Your task to perform on an android device: toggle javascript in the chrome app Image 0: 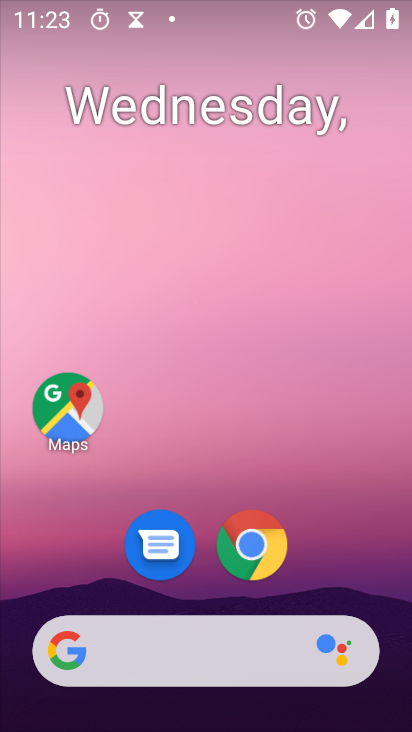
Step 0: press home button
Your task to perform on an android device: toggle javascript in the chrome app Image 1: 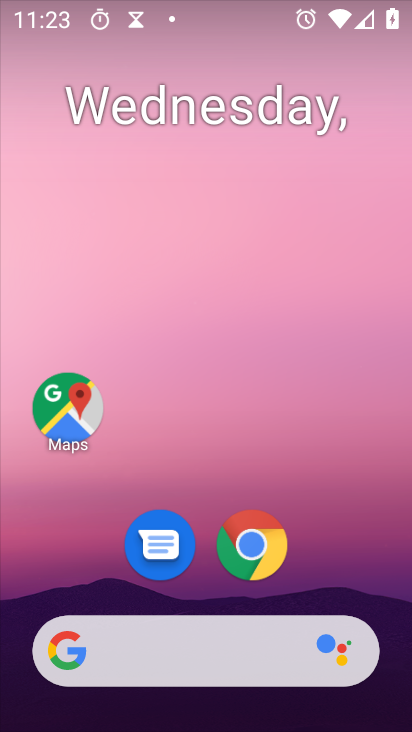
Step 1: click (249, 547)
Your task to perform on an android device: toggle javascript in the chrome app Image 2: 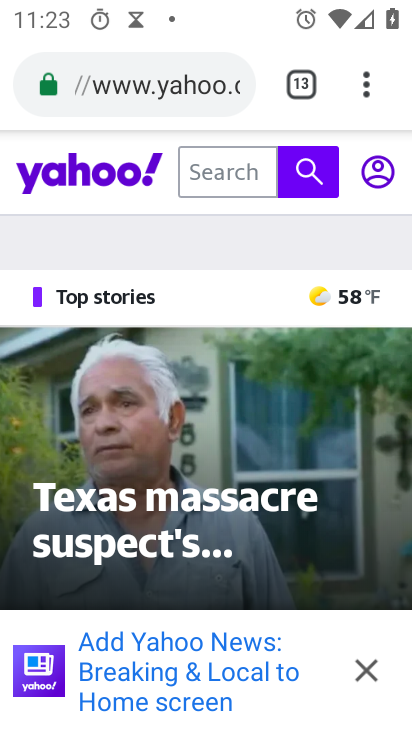
Step 2: drag from (367, 85) to (228, 605)
Your task to perform on an android device: toggle javascript in the chrome app Image 3: 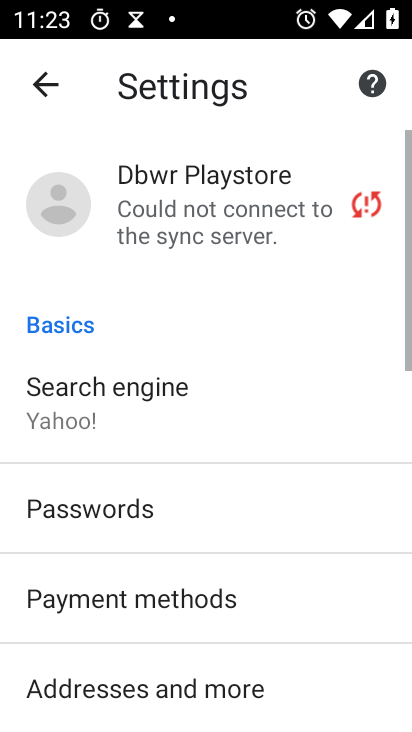
Step 3: drag from (189, 670) to (280, 231)
Your task to perform on an android device: toggle javascript in the chrome app Image 4: 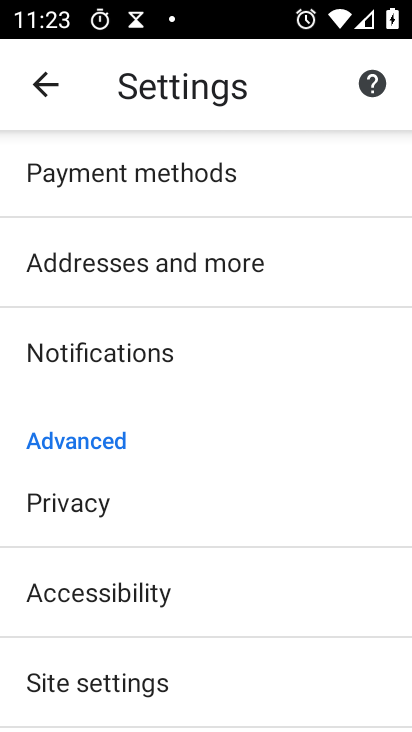
Step 4: drag from (139, 659) to (240, 320)
Your task to perform on an android device: toggle javascript in the chrome app Image 5: 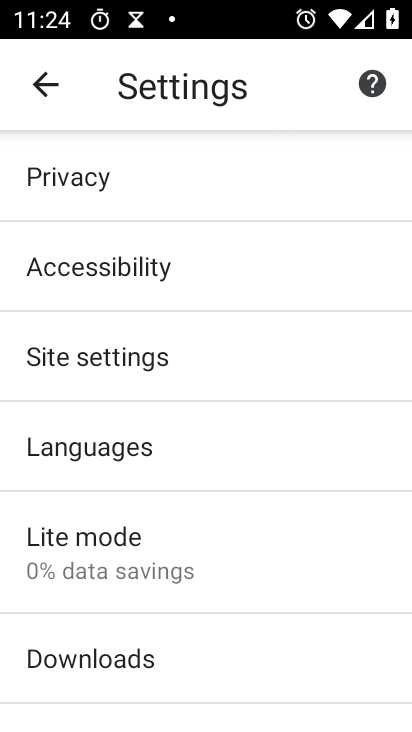
Step 5: click (125, 349)
Your task to perform on an android device: toggle javascript in the chrome app Image 6: 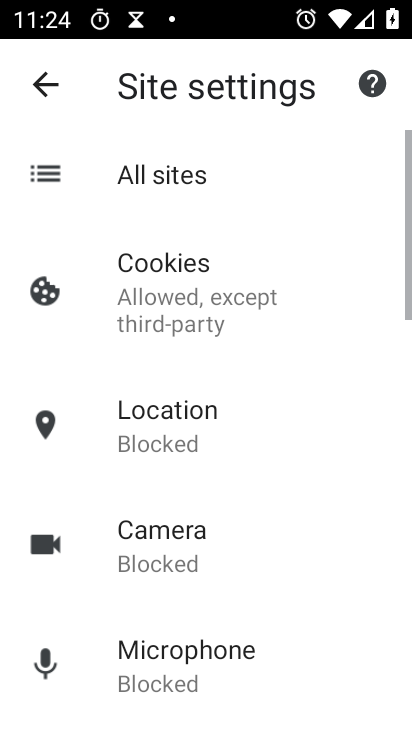
Step 6: drag from (196, 618) to (283, 137)
Your task to perform on an android device: toggle javascript in the chrome app Image 7: 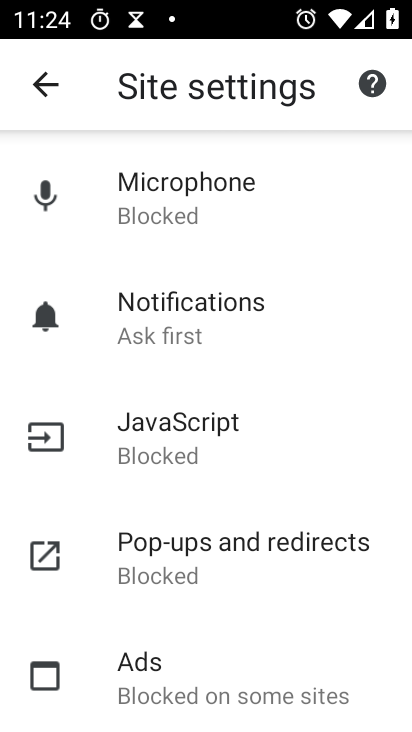
Step 7: click (156, 429)
Your task to perform on an android device: toggle javascript in the chrome app Image 8: 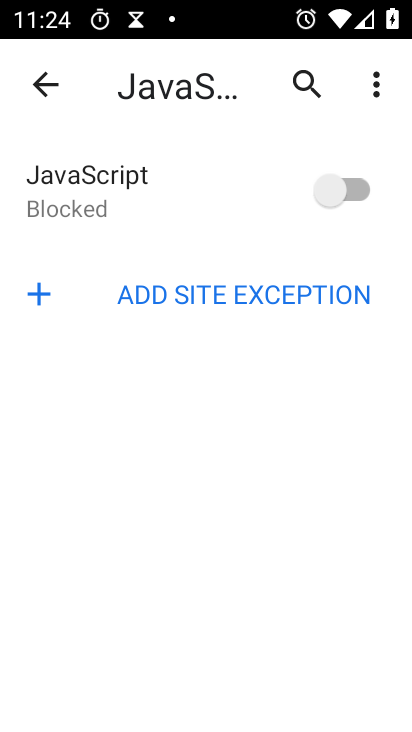
Step 8: click (359, 185)
Your task to perform on an android device: toggle javascript in the chrome app Image 9: 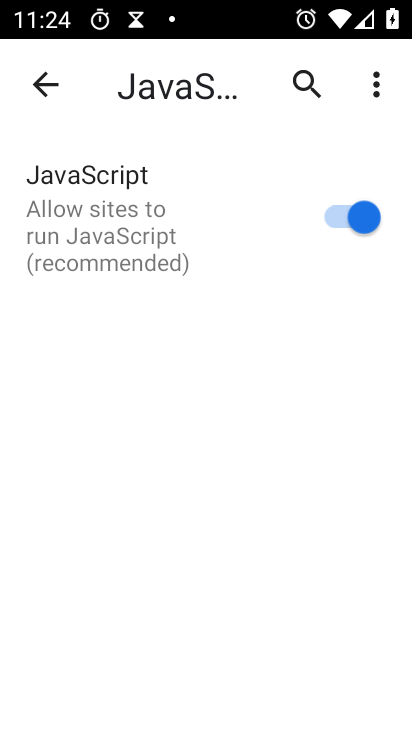
Step 9: task complete